Your task to perform on an android device: What's the weather today? Image 0: 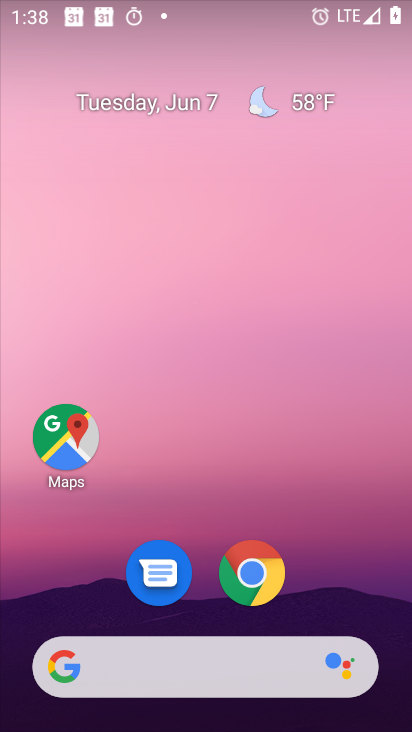
Step 0: click (267, 565)
Your task to perform on an android device: What's the weather today? Image 1: 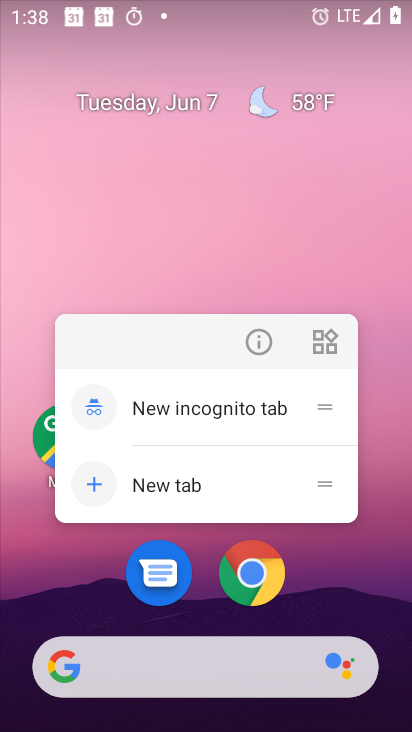
Step 1: click (306, 556)
Your task to perform on an android device: What's the weather today? Image 2: 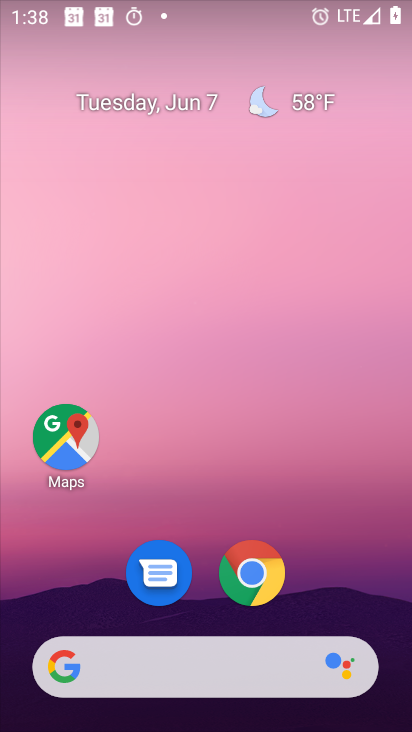
Step 2: drag from (312, 587) to (321, 87)
Your task to perform on an android device: What's the weather today? Image 3: 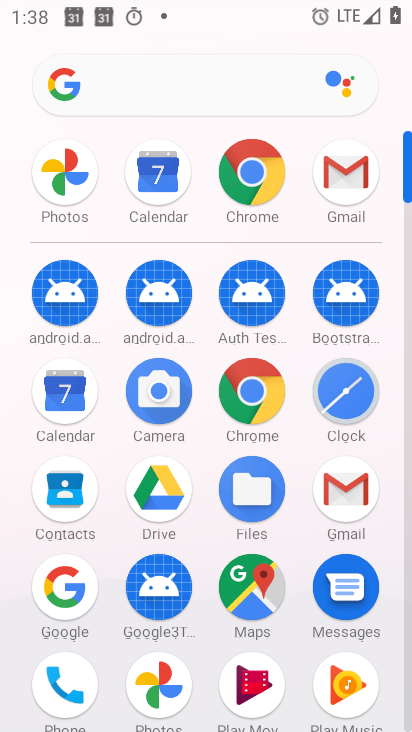
Step 3: click (241, 392)
Your task to perform on an android device: What's the weather today? Image 4: 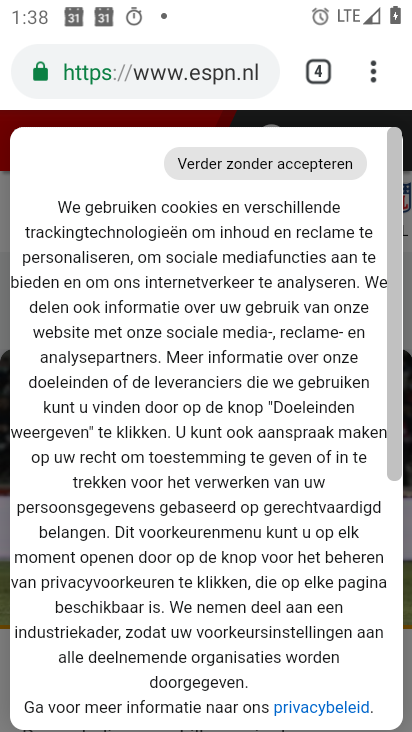
Step 4: click (180, 68)
Your task to perform on an android device: What's the weather today? Image 5: 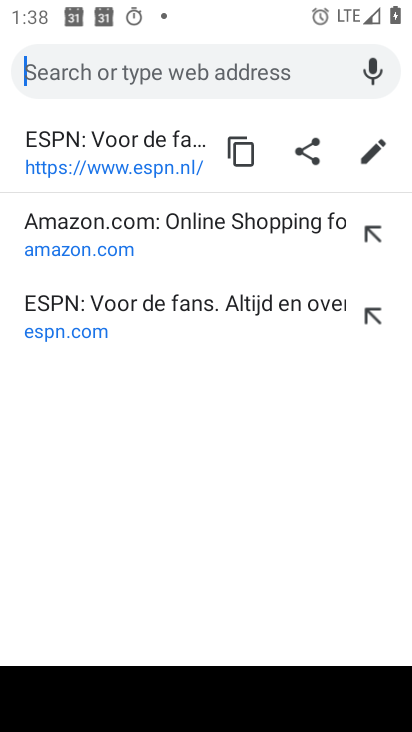
Step 5: type "What's the weather today?"
Your task to perform on an android device: What's the weather today? Image 6: 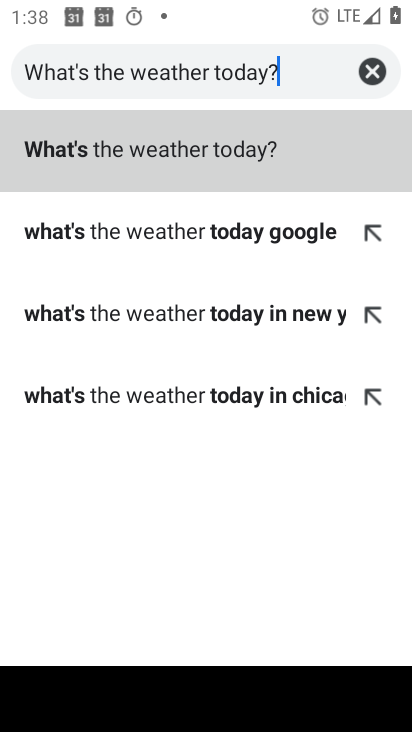
Step 6: click (112, 152)
Your task to perform on an android device: What's the weather today? Image 7: 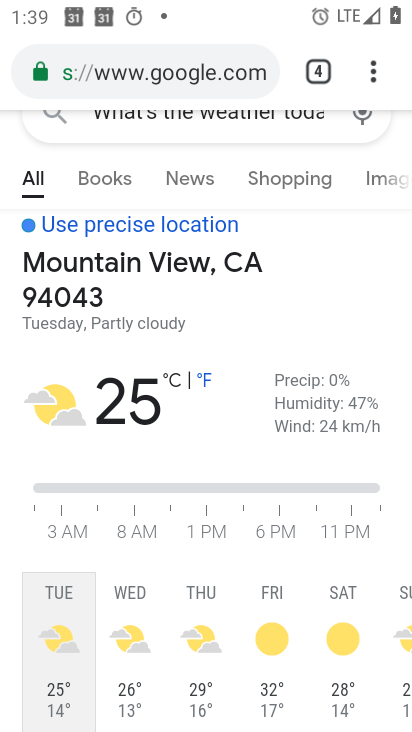
Step 7: click (232, 69)
Your task to perform on an android device: What's the weather today? Image 8: 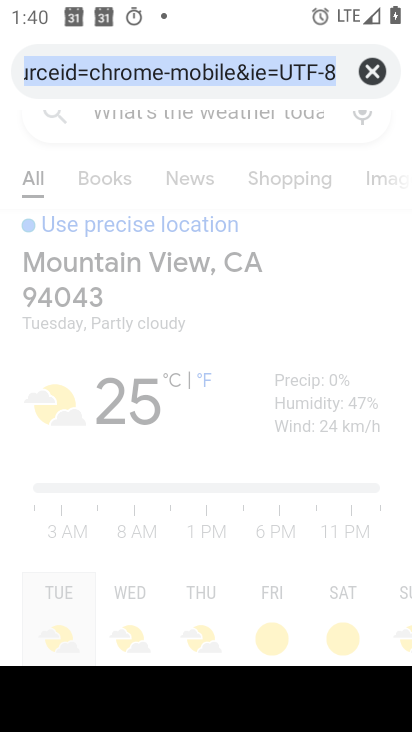
Step 8: click (368, 76)
Your task to perform on an android device: What's the weather today? Image 9: 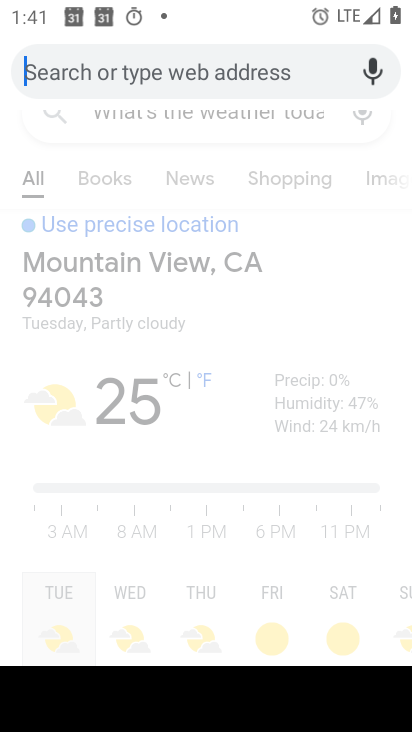
Step 9: type "What's the weather today?"
Your task to perform on an android device: What's the weather today? Image 10: 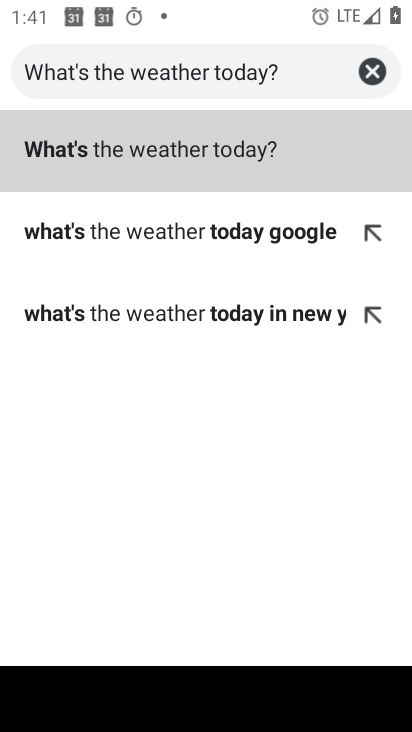
Step 10: click (156, 138)
Your task to perform on an android device: What's the weather today? Image 11: 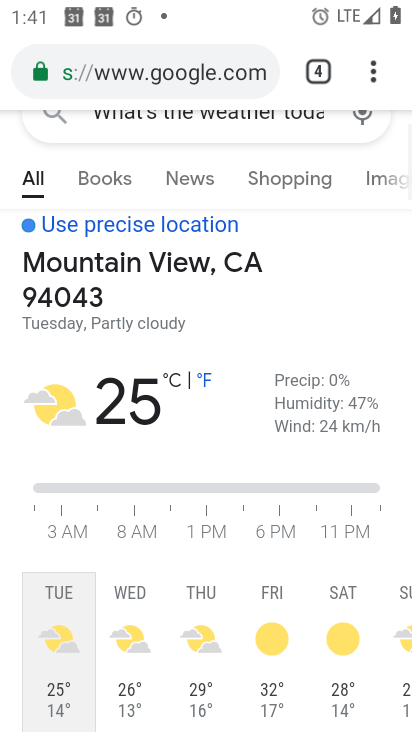
Step 11: task complete